Your task to perform on an android device: View the shopping cart on ebay.com. Search for "usb-a to usb-b" on ebay.com, select the first entry, add it to the cart, then select checkout. Image 0: 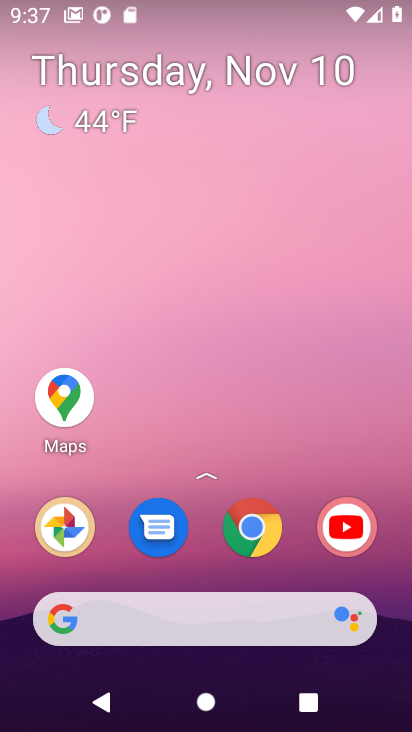
Step 0: drag from (229, 538) to (1, 341)
Your task to perform on an android device: View the shopping cart on ebay.com. Search for "usb-a to usb-b" on ebay.com, select the first entry, add it to the cart, then select checkout. Image 1: 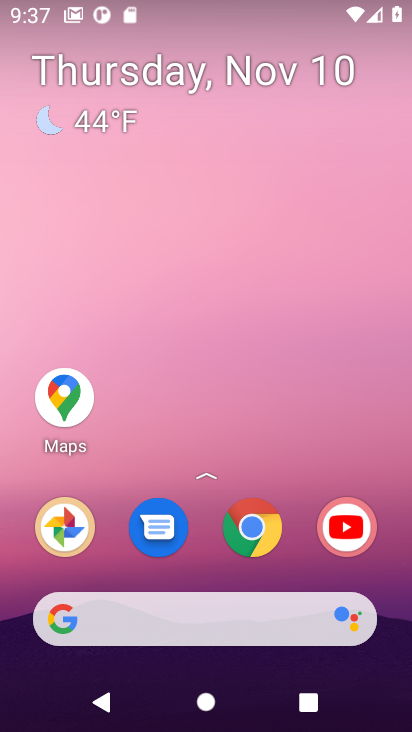
Step 1: click (214, 364)
Your task to perform on an android device: View the shopping cart on ebay.com. Search for "usb-a to usb-b" on ebay.com, select the first entry, add it to the cart, then select checkout. Image 2: 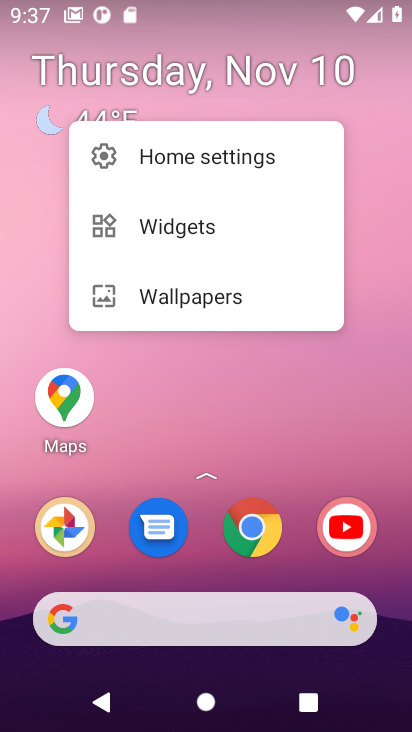
Step 2: click (249, 530)
Your task to perform on an android device: View the shopping cart on ebay.com. Search for "usb-a to usb-b" on ebay.com, select the first entry, add it to the cart, then select checkout. Image 3: 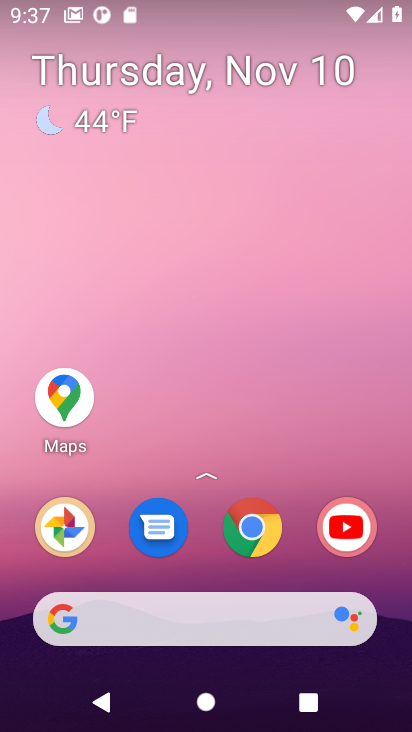
Step 3: click (246, 535)
Your task to perform on an android device: View the shopping cart on ebay.com. Search for "usb-a to usb-b" on ebay.com, select the first entry, add it to the cart, then select checkout. Image 4: 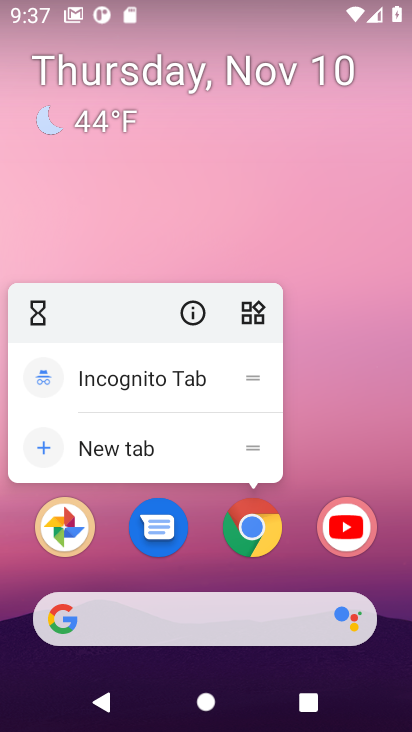
Step 4: click (254, 531)
Your task to perform on an android device: View the shopping cart on ebay.com. Search for "usb-a to usb-b" on ebay.com, select the first entry, add it to the cart, then select checkout. Image 5: 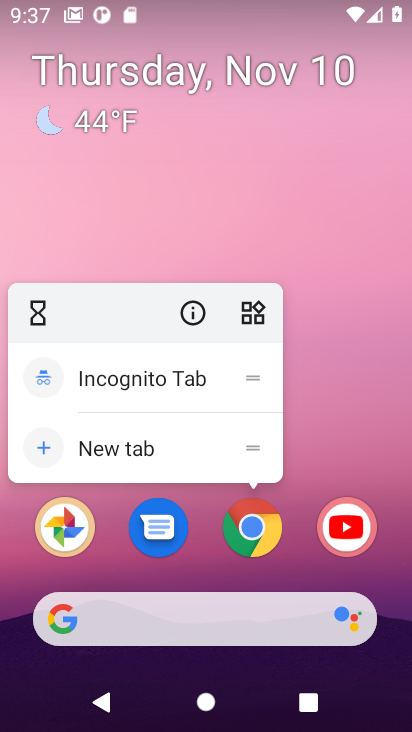
Step 5: click (254, 530)
Your task to perform on an android device: View the shopping cart on ebay.com. Search for "usb-a to usb-b" on ebay.com, select the first entry, add it to the cart, then select checkout. Image 6: 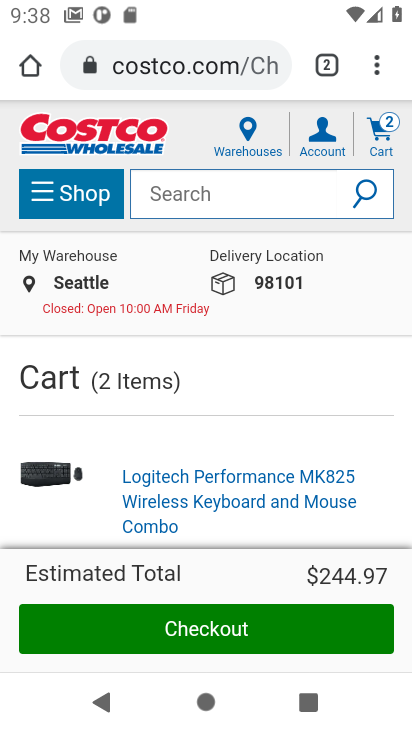
Step 6: click (148, 73)
Your task to perform on an android device: View the shopping cart on ebay.com. Search for "usb-a to usb-b" on ebay.com, select the first entry, add it to the cart, then select checkout. Image 7: 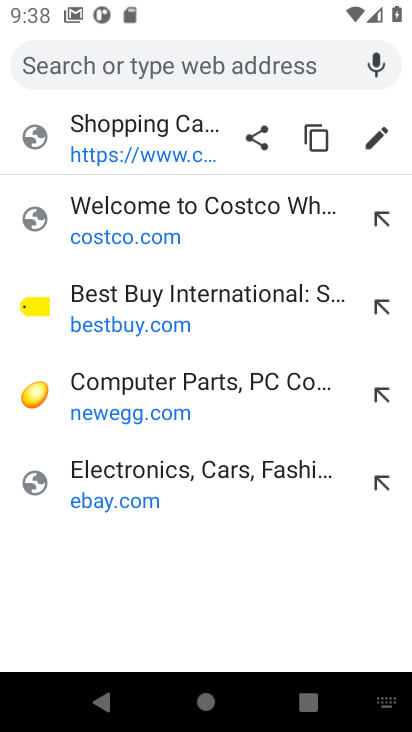
Step 7: type "ebay.com"
Your task to perform on an android device: View the shopping cart on ebay.com. Search for "usb-a to usb-b" on ebay.com, select the first entry, add it to the cart, then select checkout. Image 8: 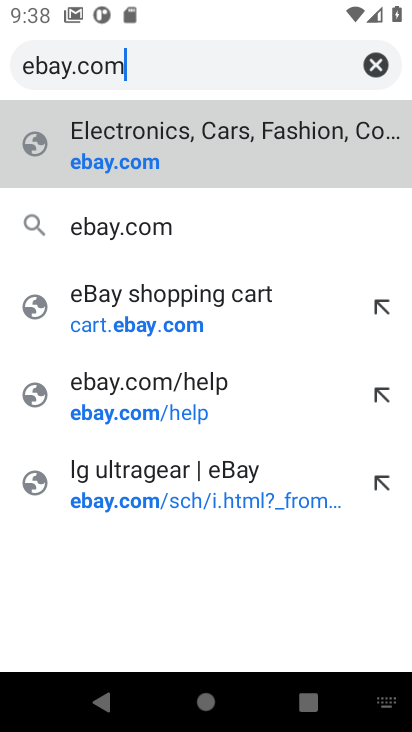
Step 8: press enter
Your task to perform on an android device: View the shopping cart on ebay.com. Search for "usb-a to usb-b" on ebay.com, select the first entry, add it to the cart, then select checkout. Image 9: 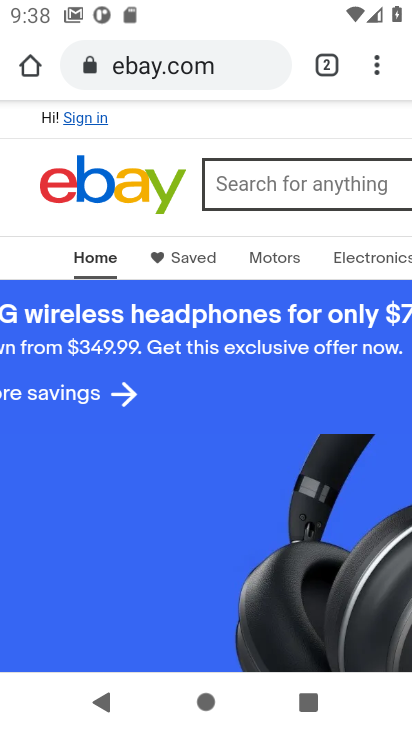
Step 9: click (285, 181)
Your task to perform on an android device: View the shopping cart on ebay.com. Search for "usb-a to usb-b" on ebay.com, select the first entry, add it to the cart, then select checkout. Image 10: 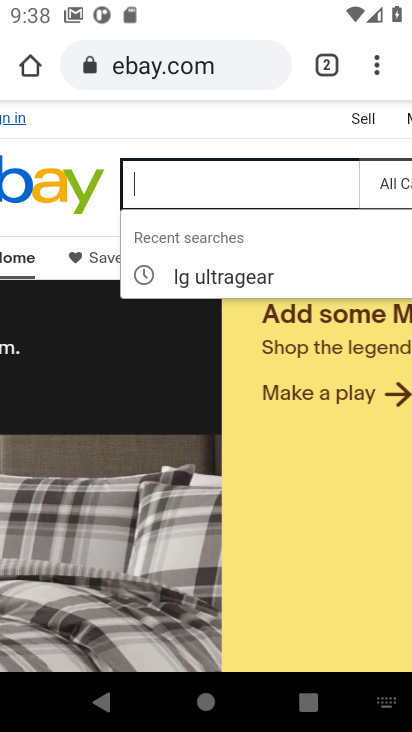
Step 10: type "usb-a to usb-b"
Your task to perform on an android device: View the shopping cart on ebay.com. Search for "usb-a to usb-b" on ebay.com, select the first entry, add it to the cart, then select checkout. Image 11: 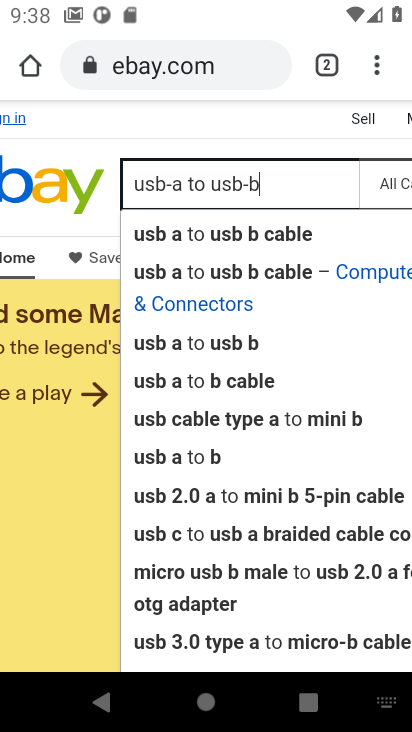
Step 11: press enter
Your task to perform on an android device: View the shopping cart on ebay.com. Search for "usb-a to usb-b" on ebay.com, select the first entry, add it to the cart, then select checkout. Image 12: 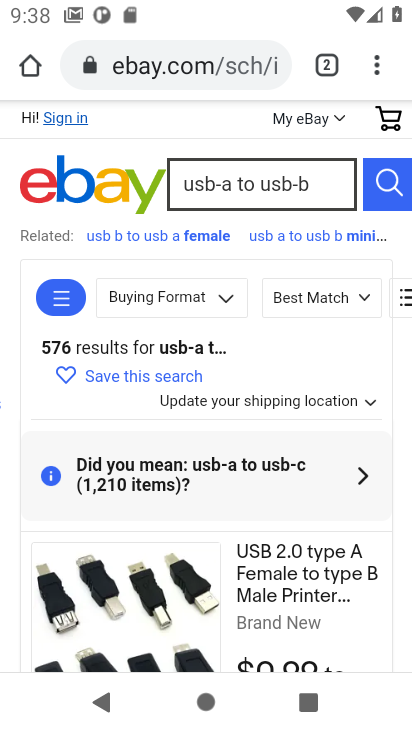
Step 12: drag from (199, 486) to (238, 219)
Your task to perform on an android device: View the shopping cart on ebay.com. Search for "usb-a to usb-b" on ebay.com, select the first entry, add it to the cart, then select checkout. Image 13: 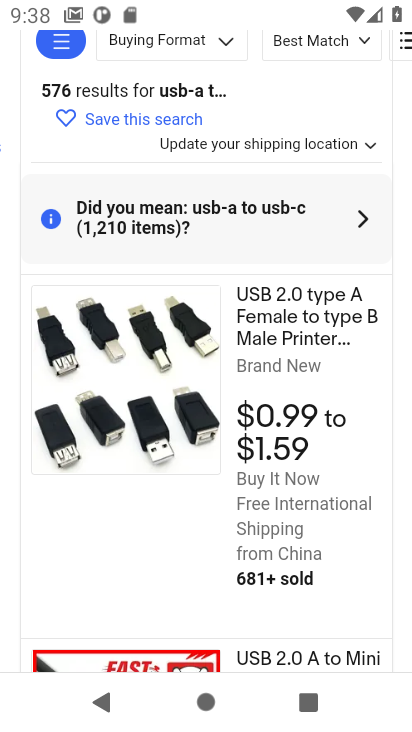
Step 13: click (269, 310)
Your task to perform on an android device: View the shopping cart on ebay.com. Search for "usb-a to usb-b" on ebay.com, select the first entry, add it to the cart, then select checkout. Image 14: 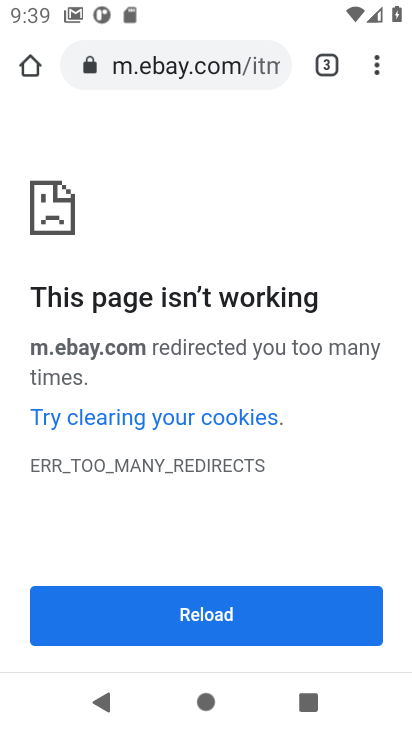
Step 14: click (200, 620)
Your task to perform on an android device: View the shopping cart on ebay.com. Search for "usb-a to usb-b" on ebay.com, select the first entry, add it to the cart, then select checkout. Image 15: 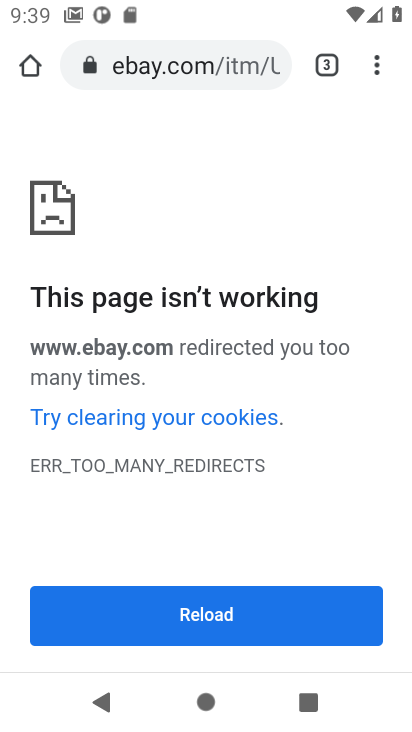
Step 15: click (203, 618)
Your task to perform on an android device: View the shopping cart on ebay.com. Search for "usb-a to usb-b" on ebay.com, select the first entry, add it to the cart, then select checkout. Image 16: 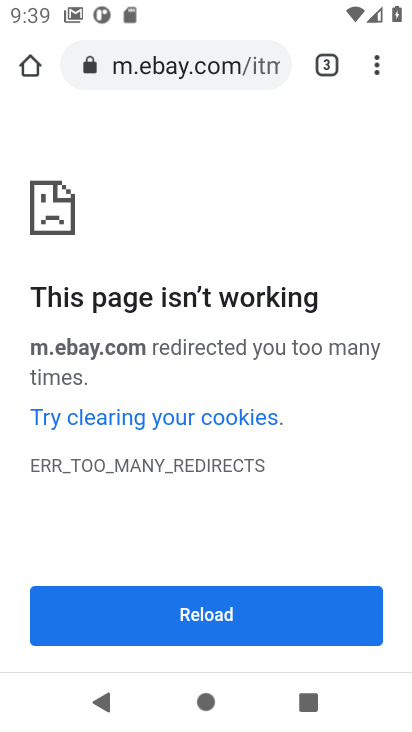
Step 16: task complete